Your task to perform on an android device: open chrome and create a bookmark for the current page Image 0: 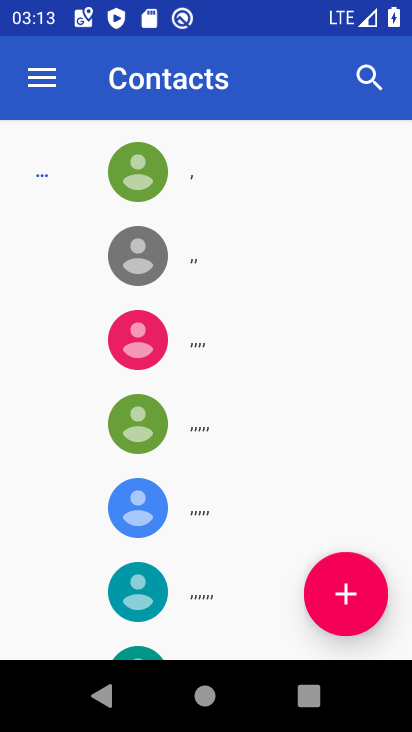
Step 0: press home button
Your task to perform on an android device: open chrome and create a bookmark for the current page Image 1: 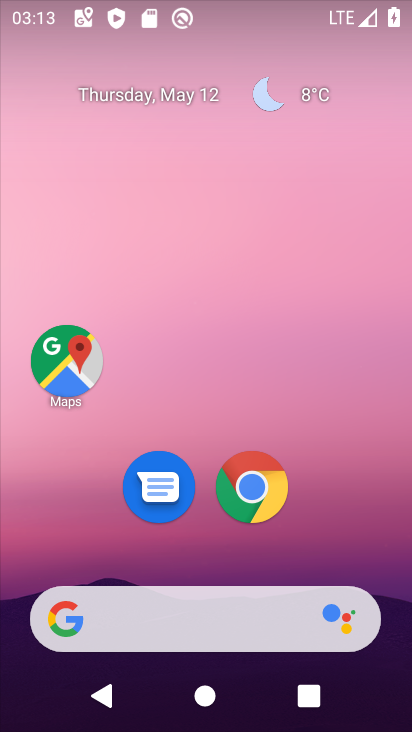
Step 1: drag from (378, 491) to (379, 119)
Your task to perform on an android device: open chrome and create a bookmark for the current page Image 2: 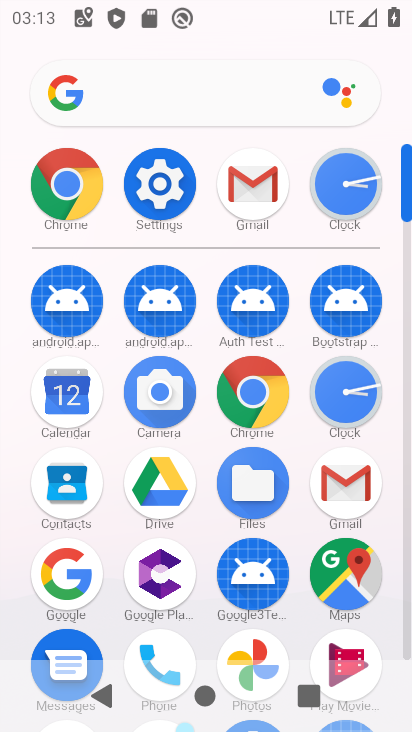
Step 2: click (257, 395)
Your task to perform on an android device: open chrome and create a bookmark for the current page Image 3: 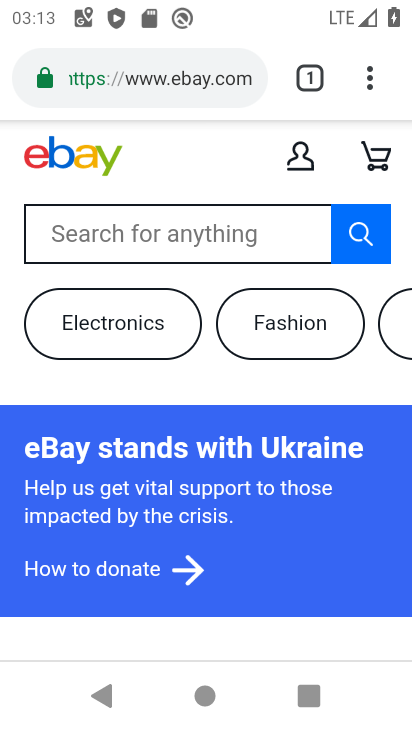
Step 3: task complete